Your task to perform on an android device: open a new tab in the chrome app Image 0: 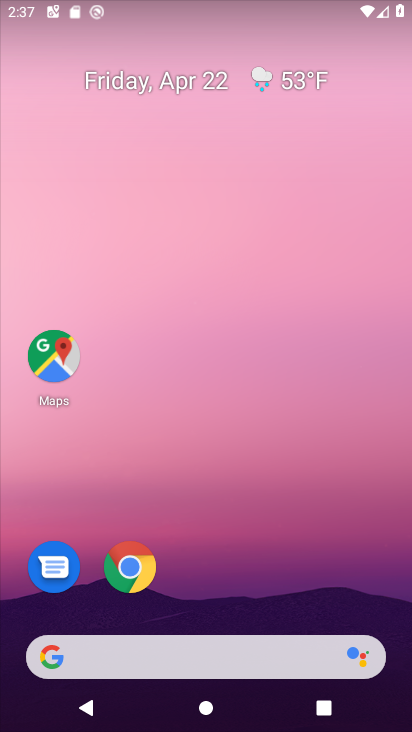
Step 0: click (140, 567)
Your task to perform on an android device: open a new tab in the chrome app Image 1: 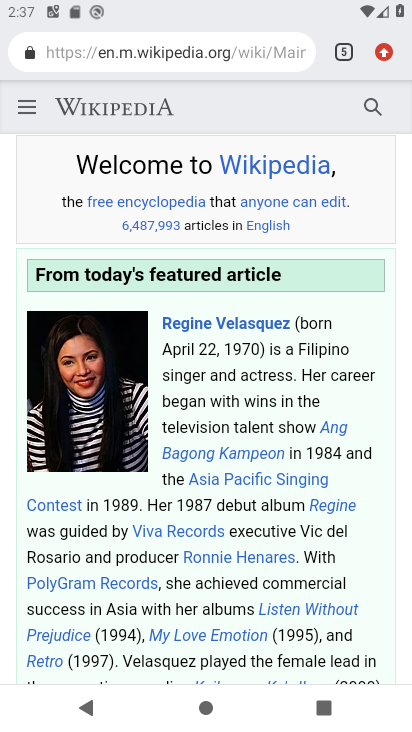
Step 1: task complete